Your task to perform on an android device: Show me the best rated 42 inch TV on Walmart. Image 0: 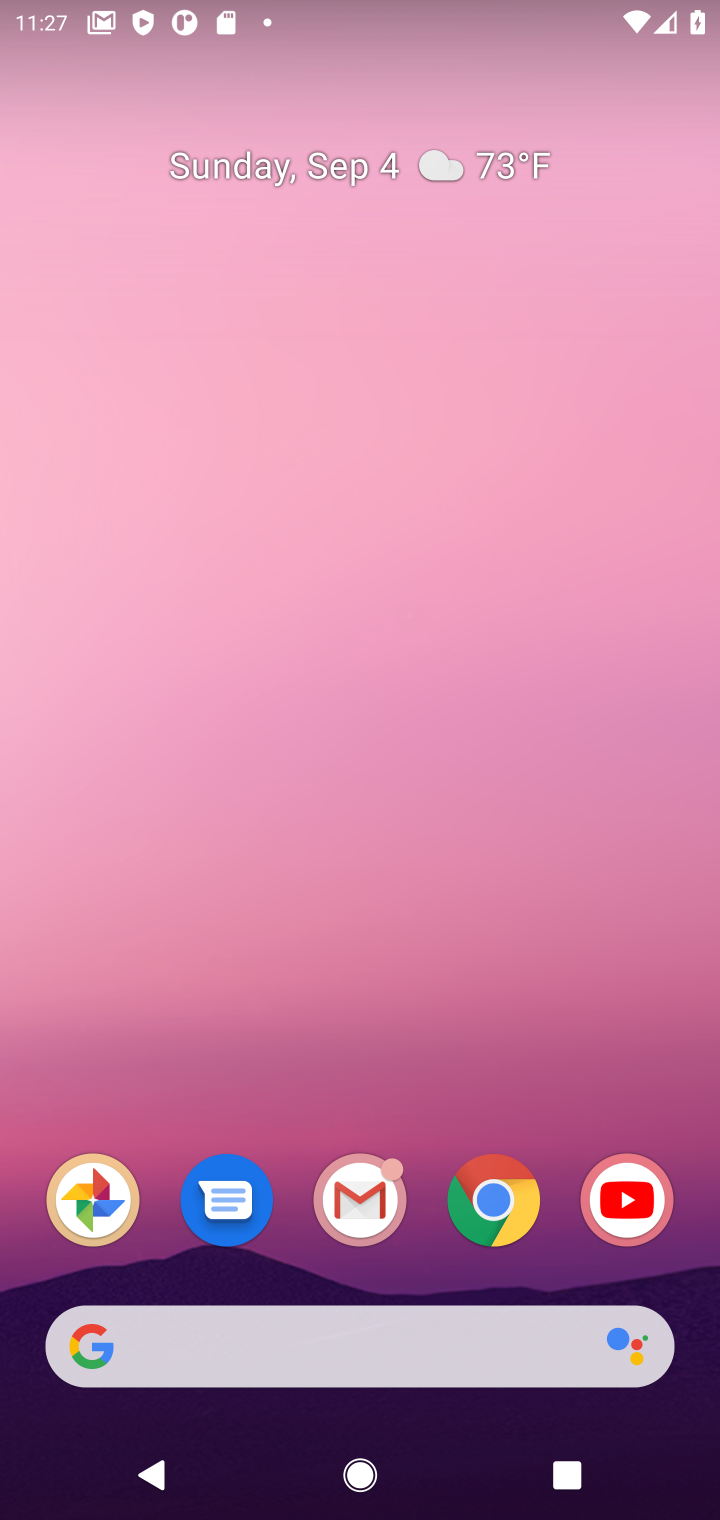
Step 0: drag from (366, 1088) to (402, 114)
Your task to perform on an android device: Show me the best rated 42 inch TV on Walmart. Image 1: 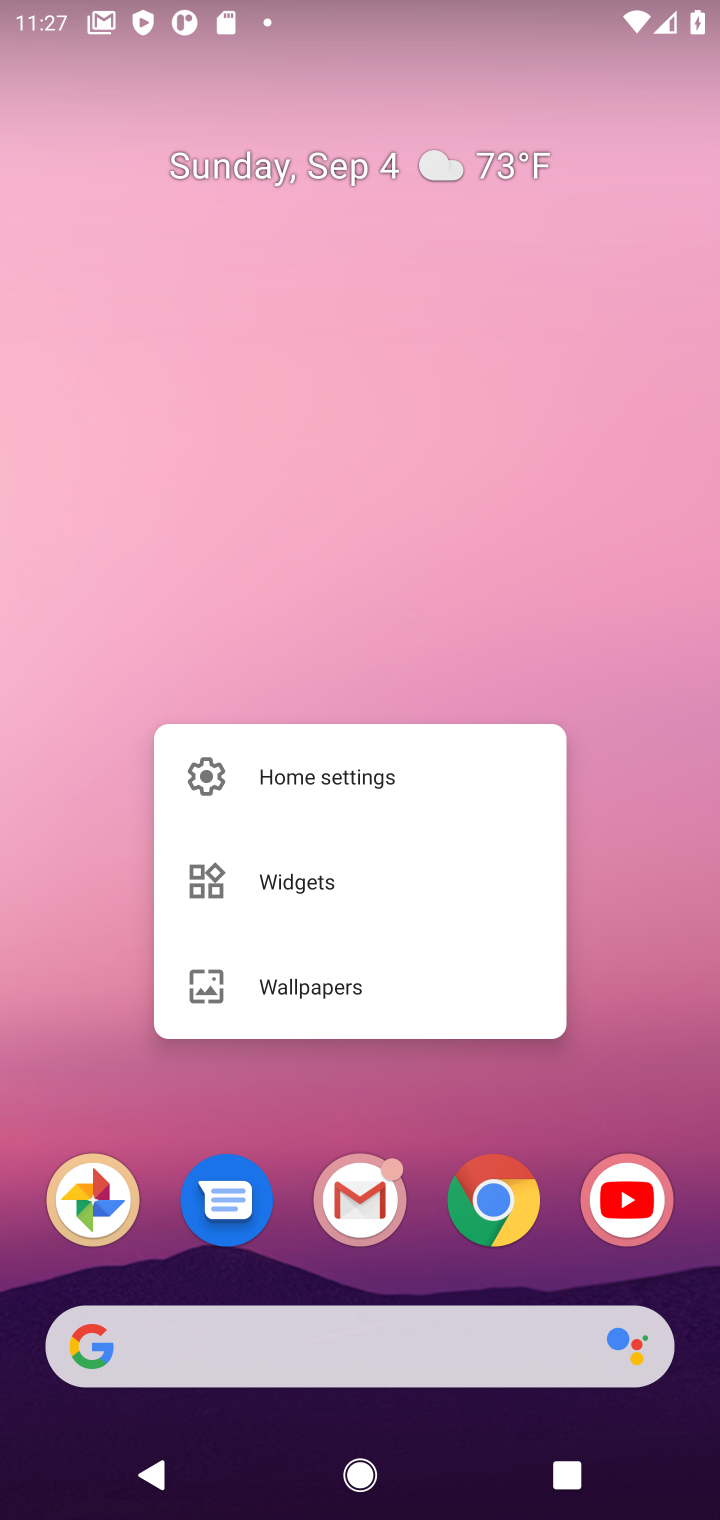
Step 1: click (428, 511)
Your task to perform on an android device: Show me the best rated 42 inch TV on Walmart. Image 2: 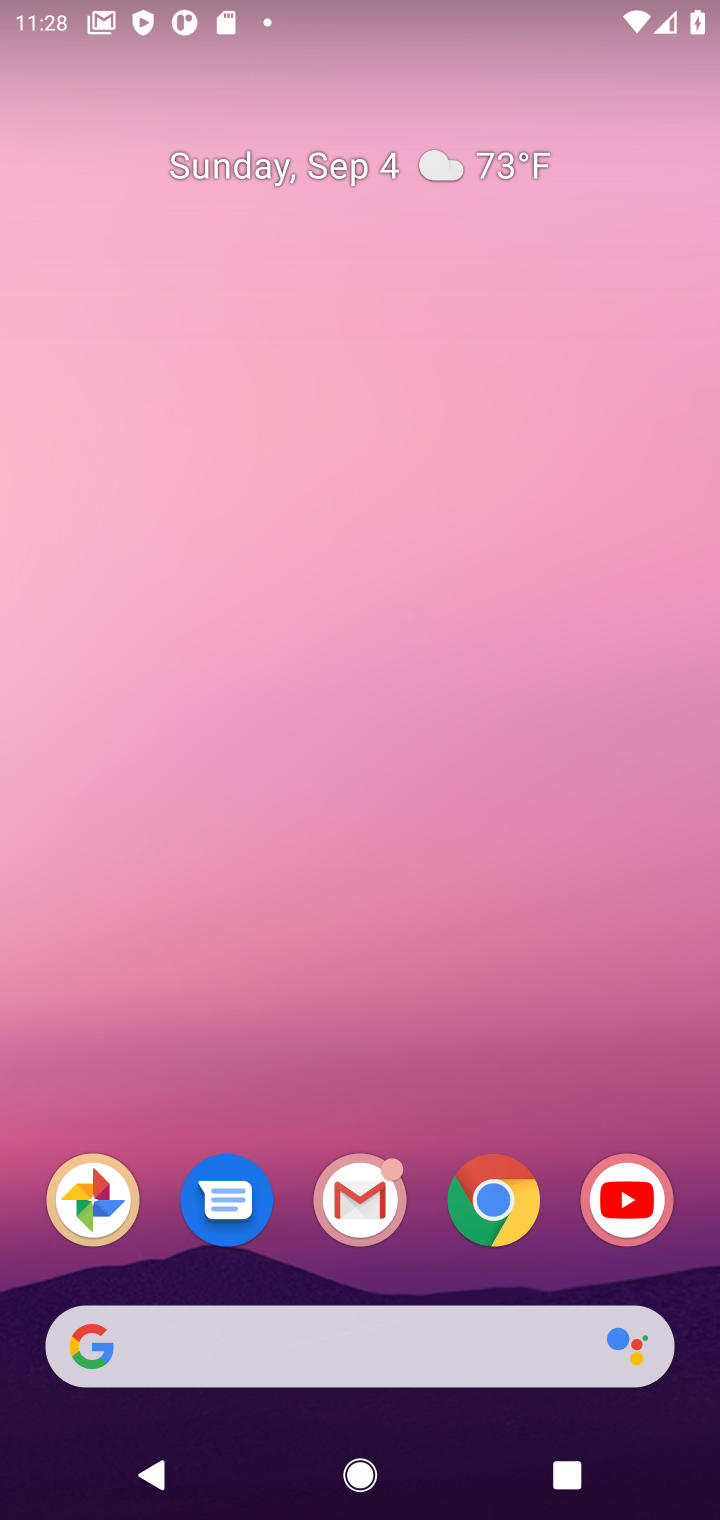
Step 2: click (499, 1205)
Your task to perform on an android device: Show me the best rated 42 inch TV on Walmart. Image 3: 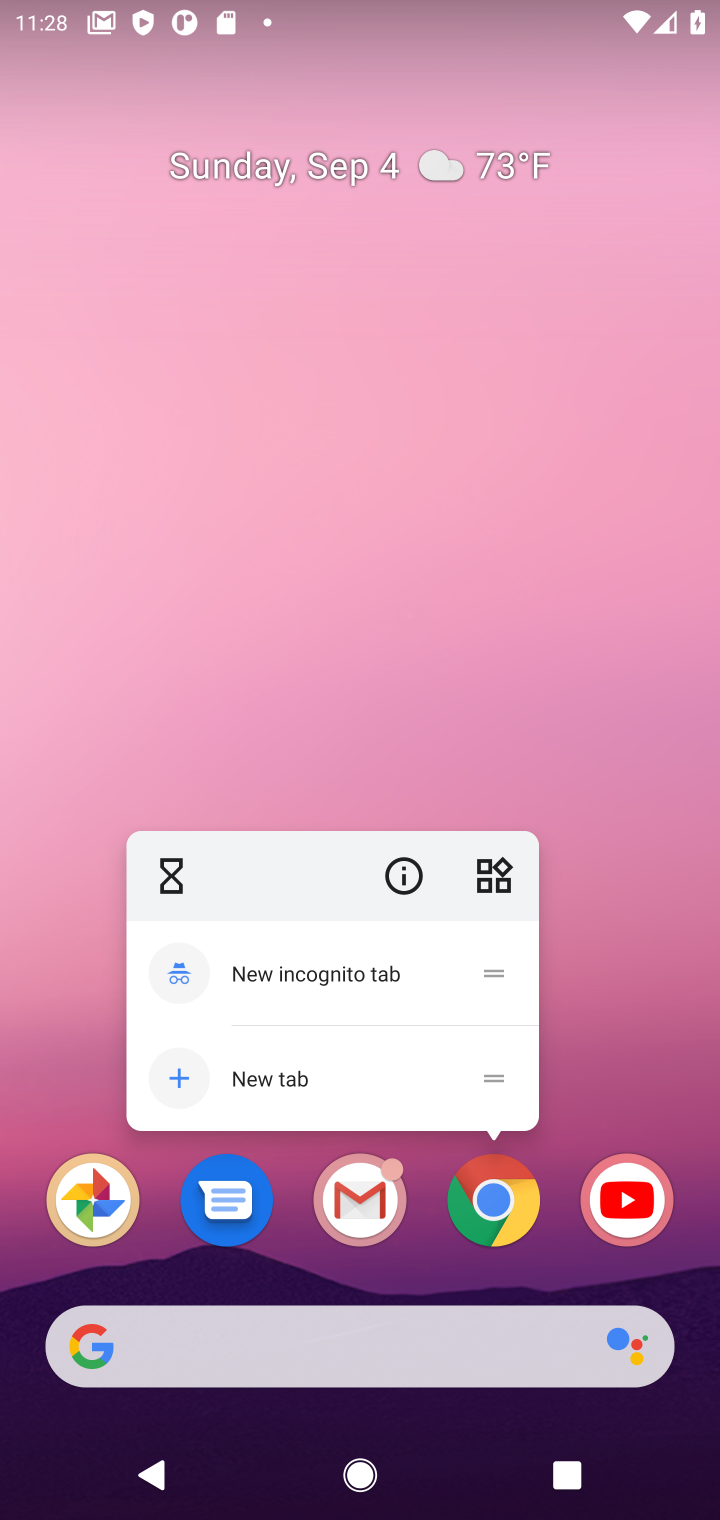
Step 3: click (490, 1206)
Your task to perform on an android device: Show me the best rated 42 inch TV on Walmart. Image 4: 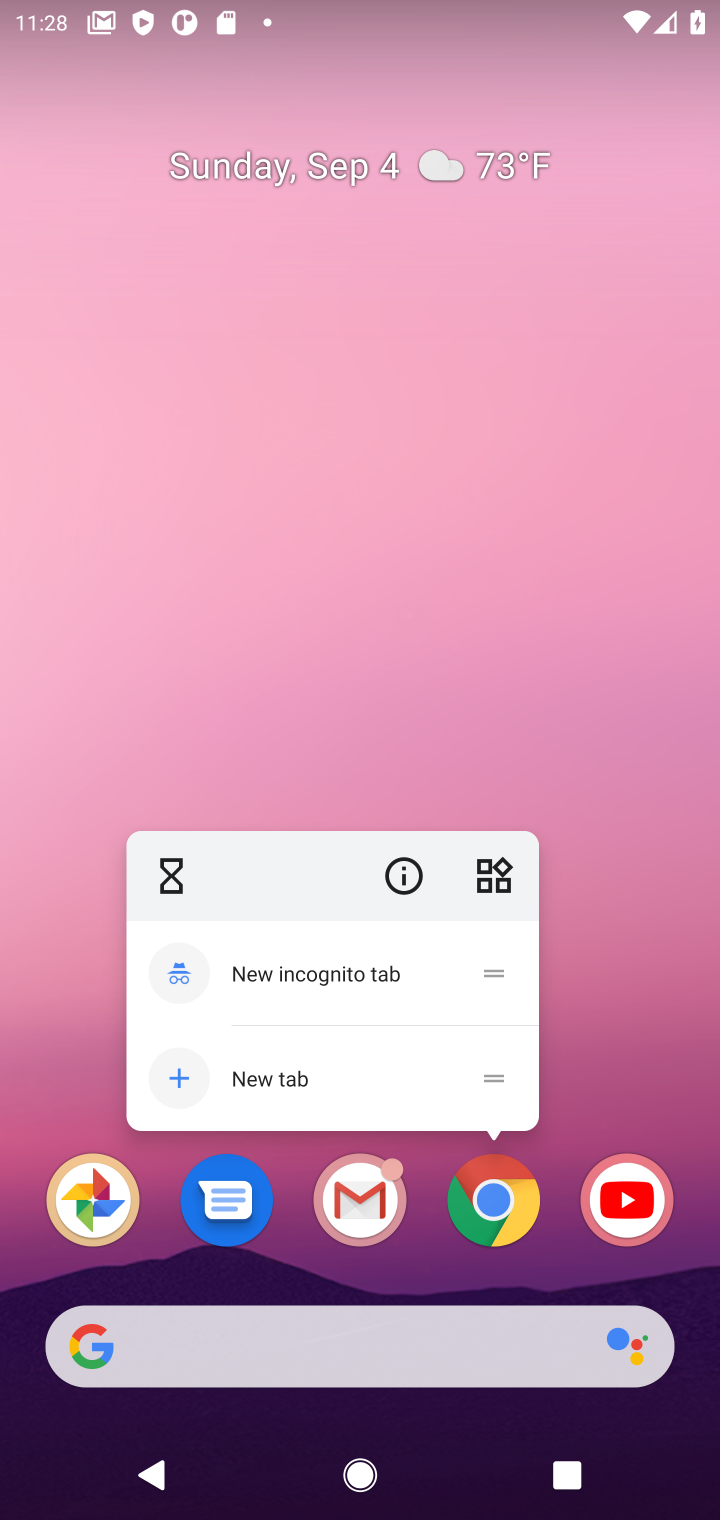
Step 4: click (520, 1202)
Your task to perform on an android device: Show me the best rated 42 inch TV on Walmart. Image 5: 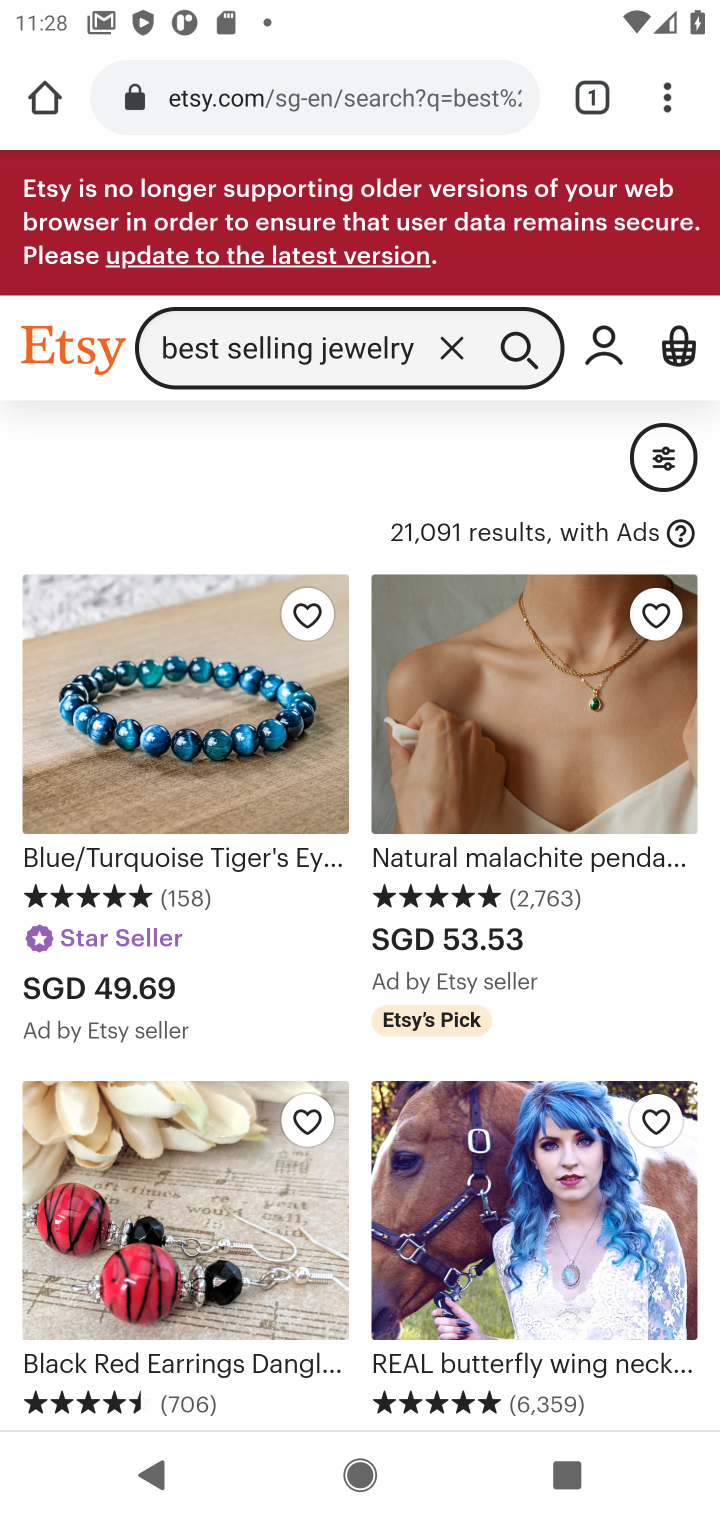
Step 5: click (480, 90)
Your task to perform on an android device: Show me the best rated 42 inch TV on Walmart. Image 6: 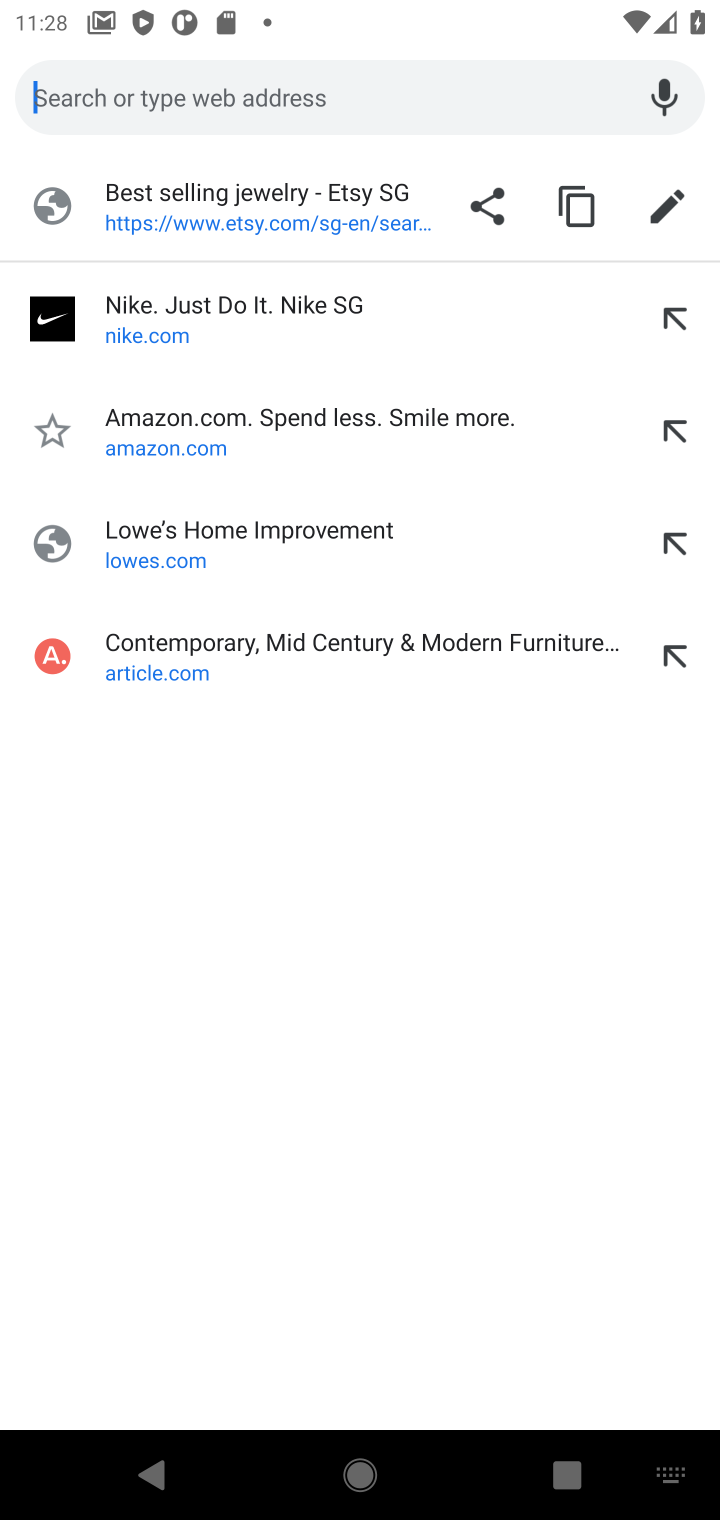
Step 6: click (417, 95)
Your task to perform on an android device: Show me the best rated 42 inch TV on Walmart. Image 7: 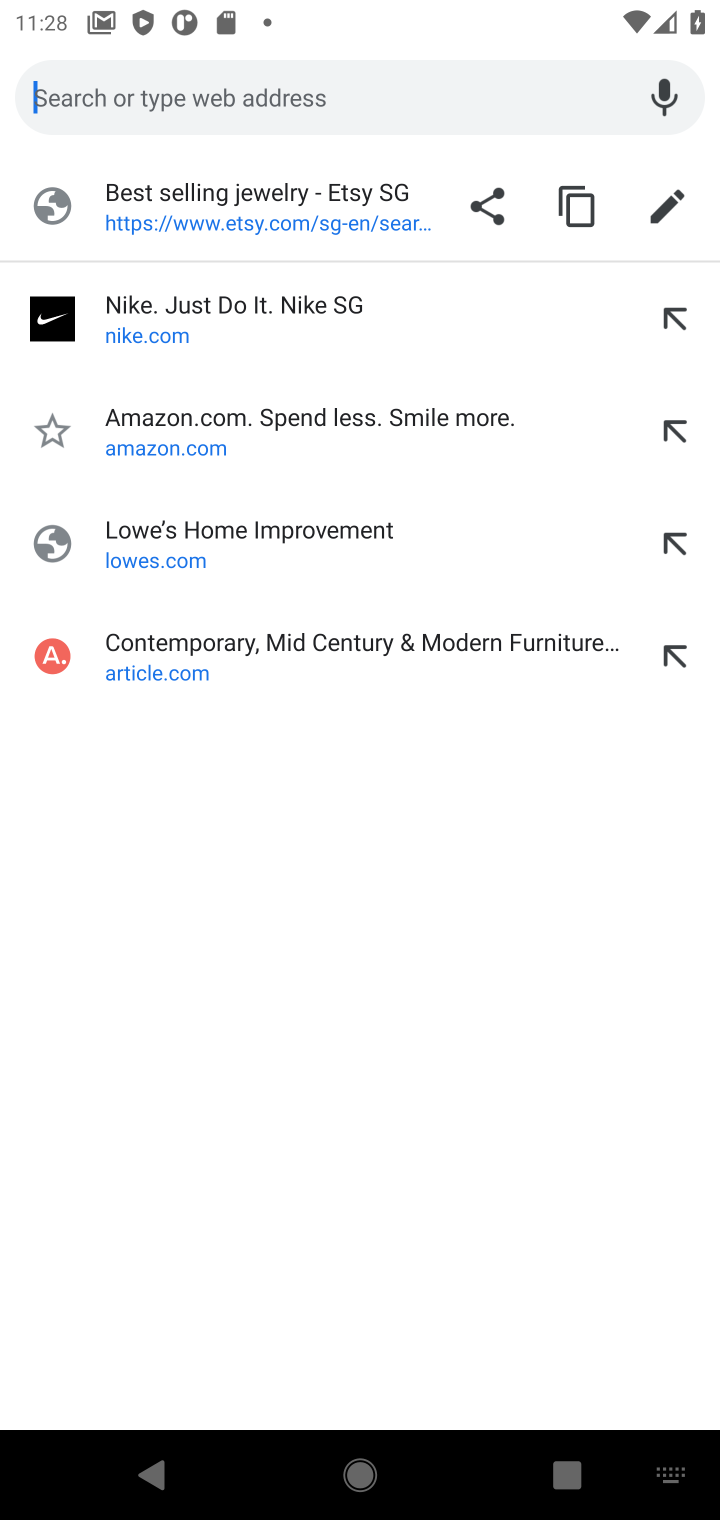
Step 7: type "walmart"
Your task to perform on an android device: Show me the best rated 42 inch TV on Walmart. Image 8: 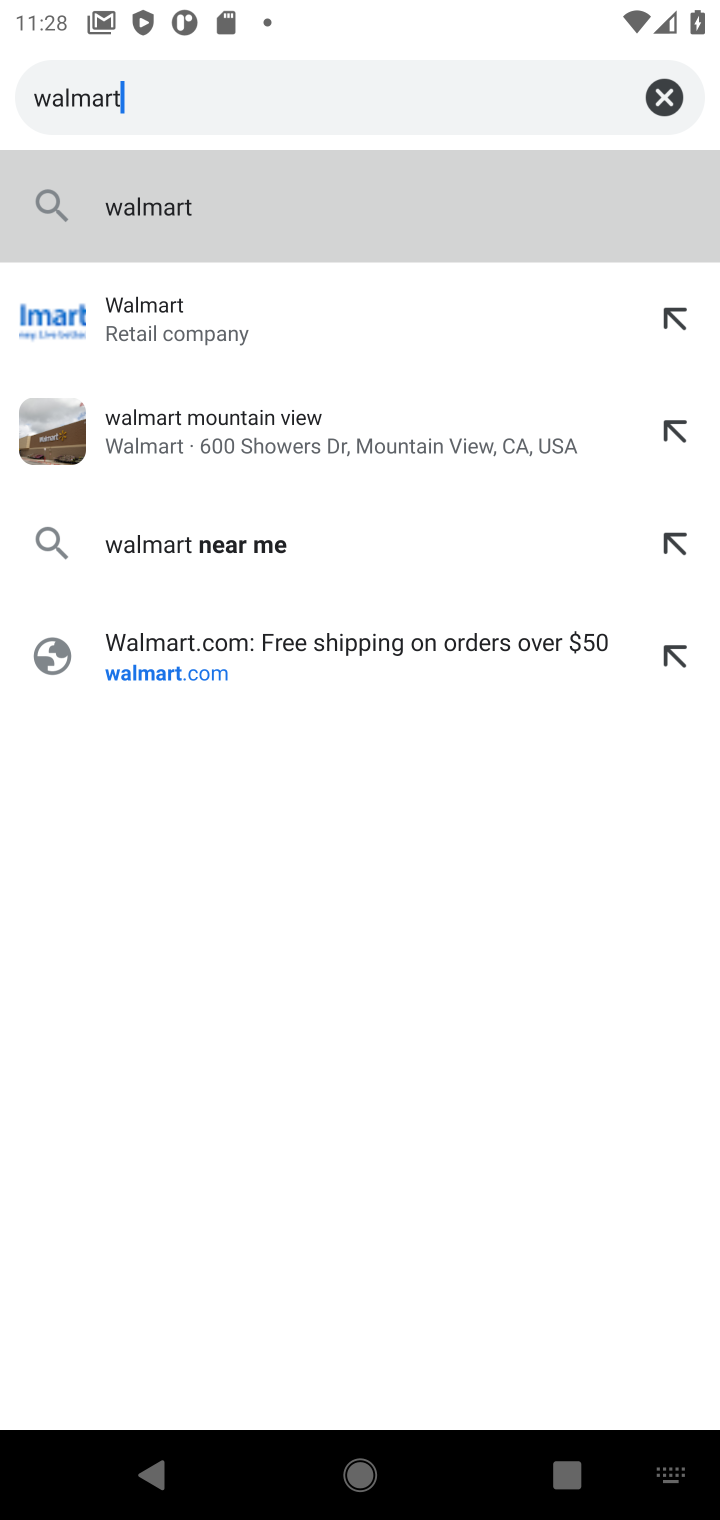
Step 8: click (73, 318)
Your task to perform on an android device: Show me the best rated 42 inch TV on Walmart. Image 9: 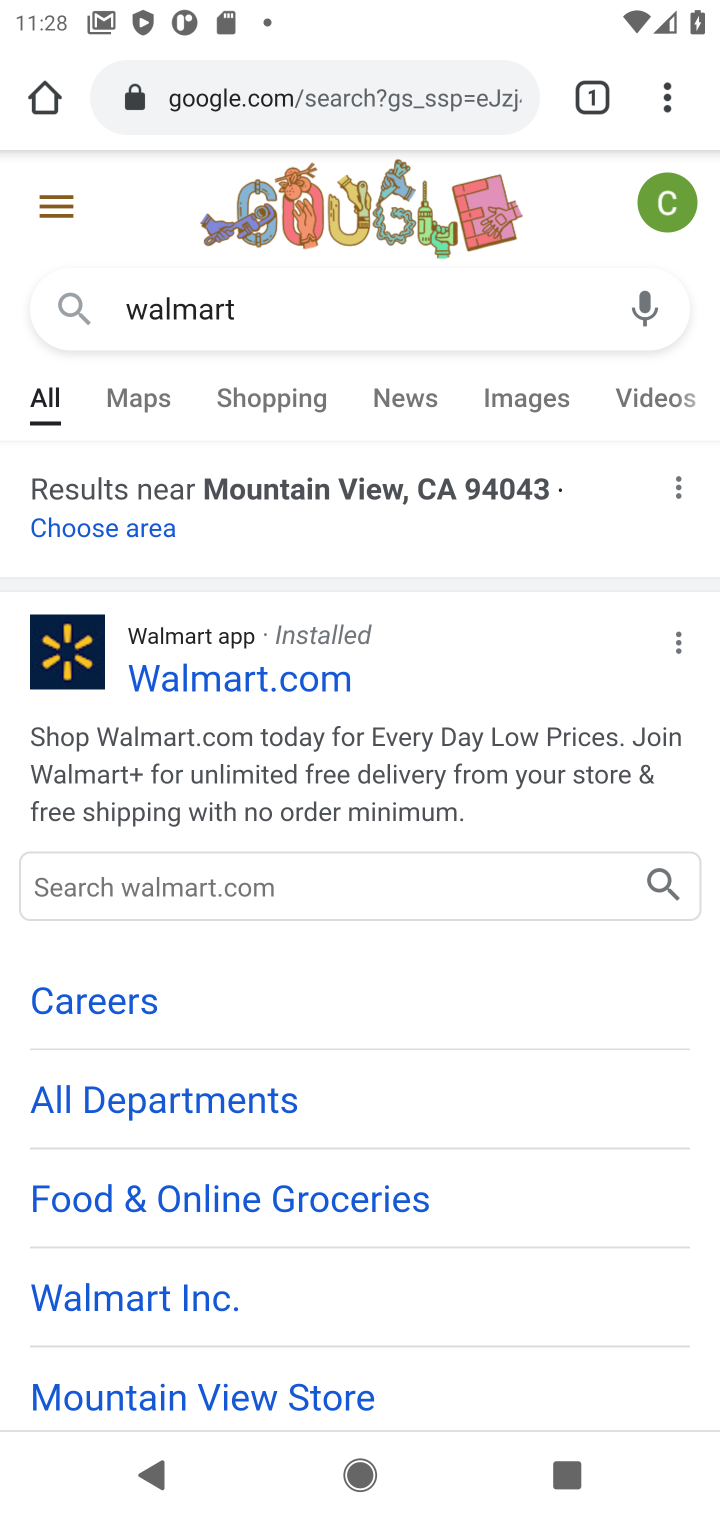
Step 9: click (149, 688)
Your task to perform on an android device: Show me the best rated 42 inch TV on Walmart. Image 10: 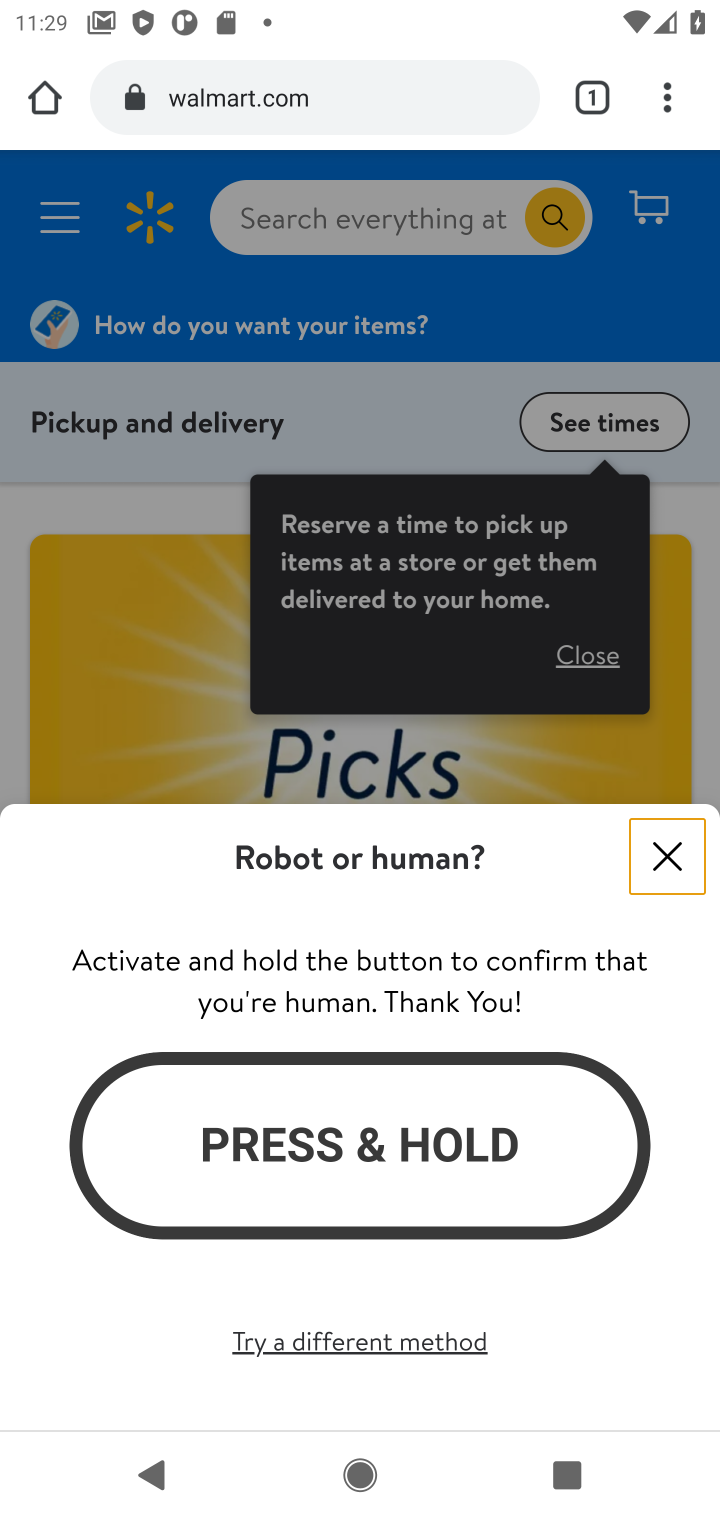
Step 10: click (657, 851)
Your task to perform on an android device: Show me the best rated 42 inch TV on Walmart. Image 11: 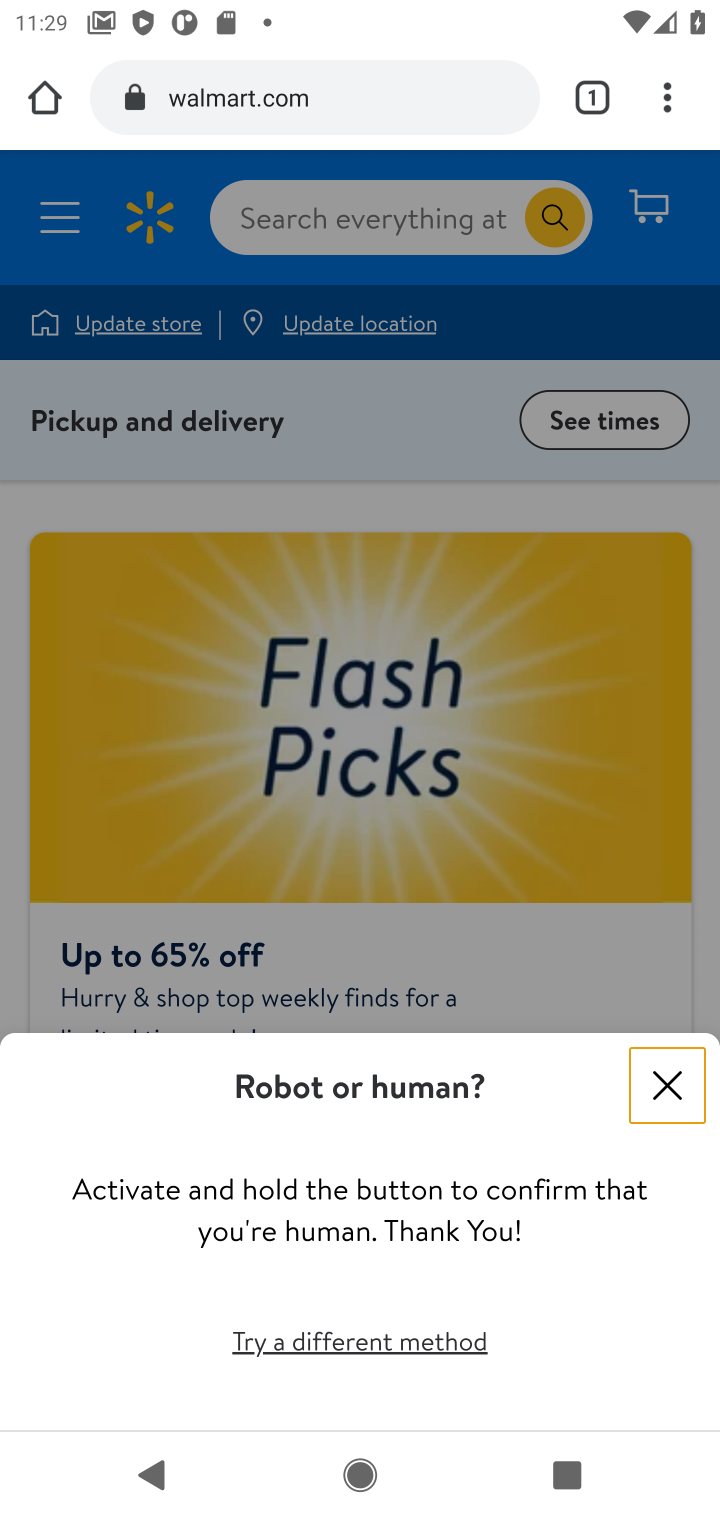
Step 11: click (675, 1068)
Your task to perform on an android device: Show me the best rated 42 inch TV on Walmart. Image 12: 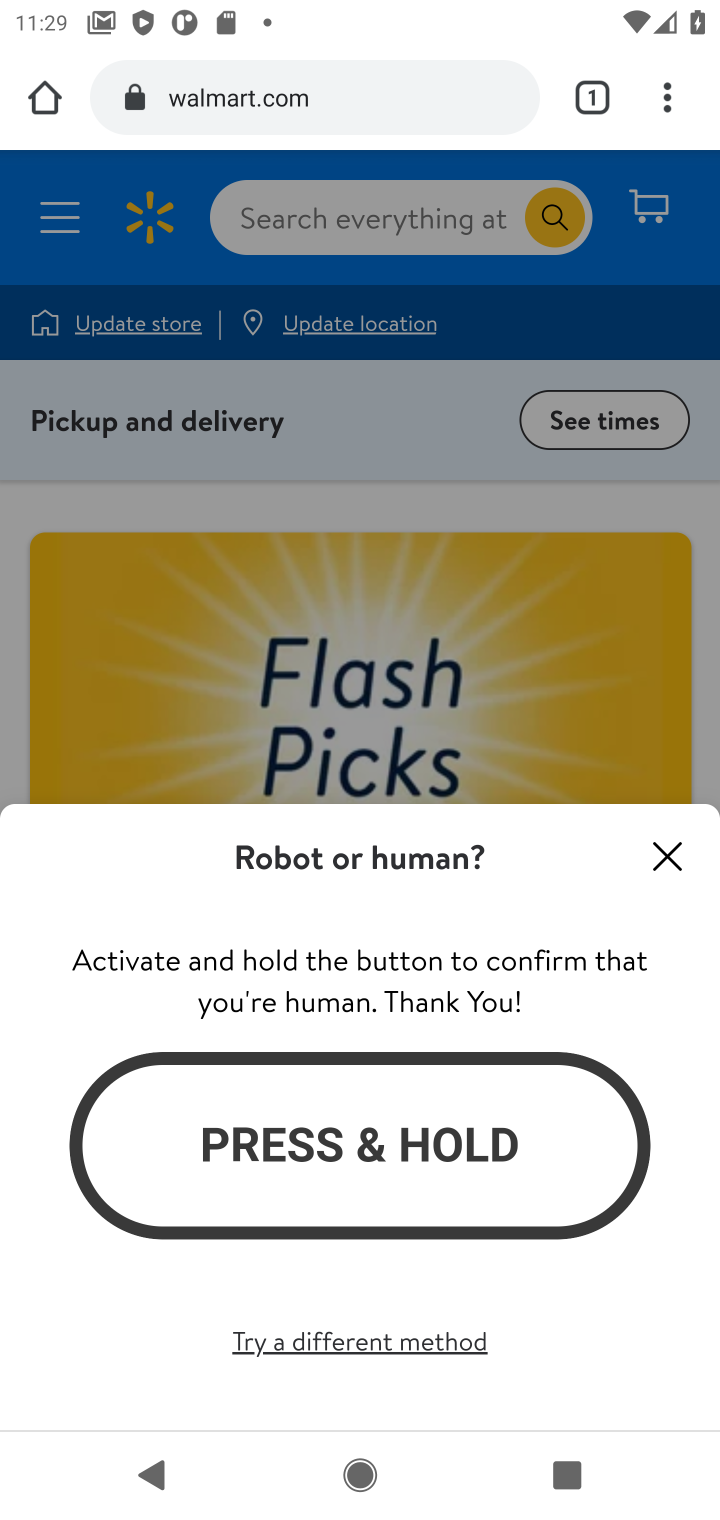
Step 12: click (509, 1133)
Your task to perform on an android device: Show me the best rated 42 inch TV on Walmart. Image 13: 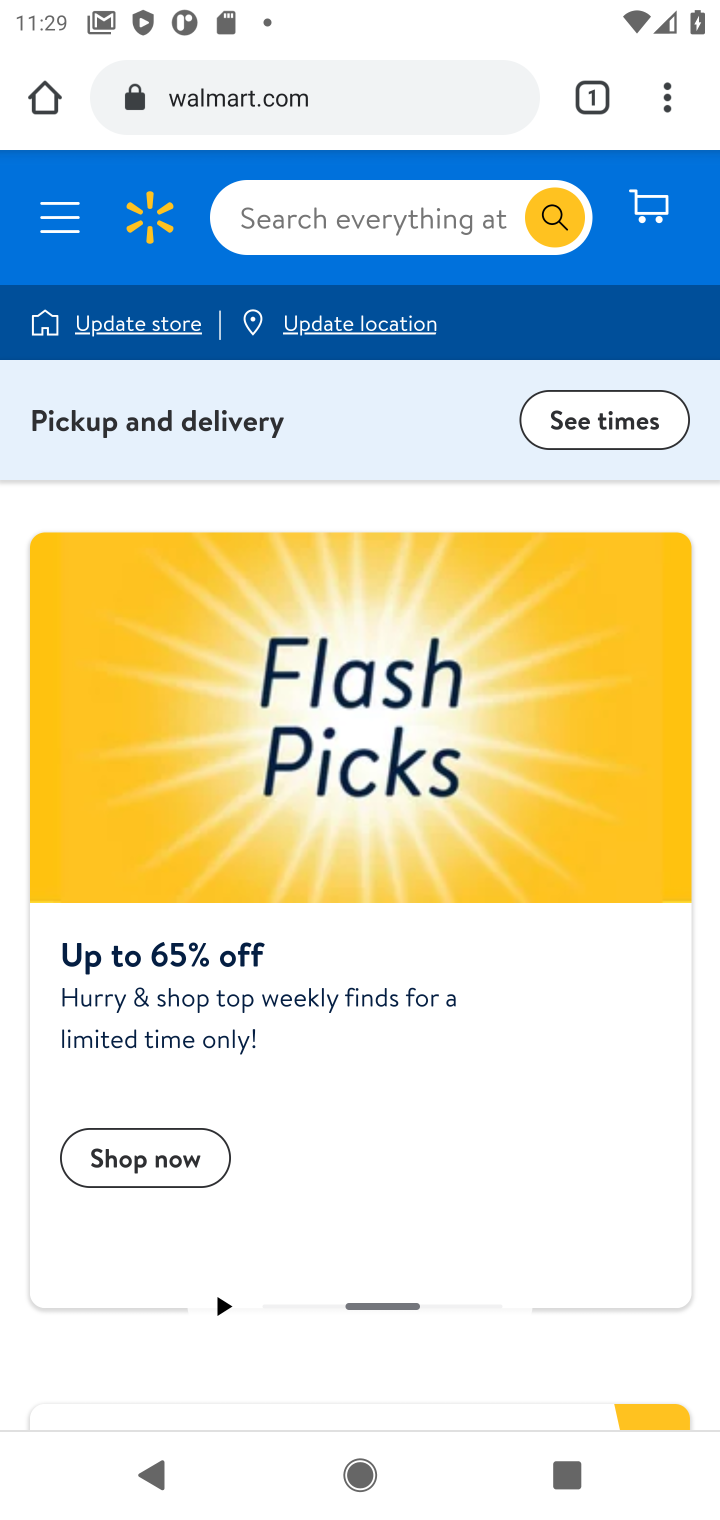
Step 13: click (468, 228)
Your task to perform on an android device: Show me the best rated 42 inch TV on Walmart. Image 14: 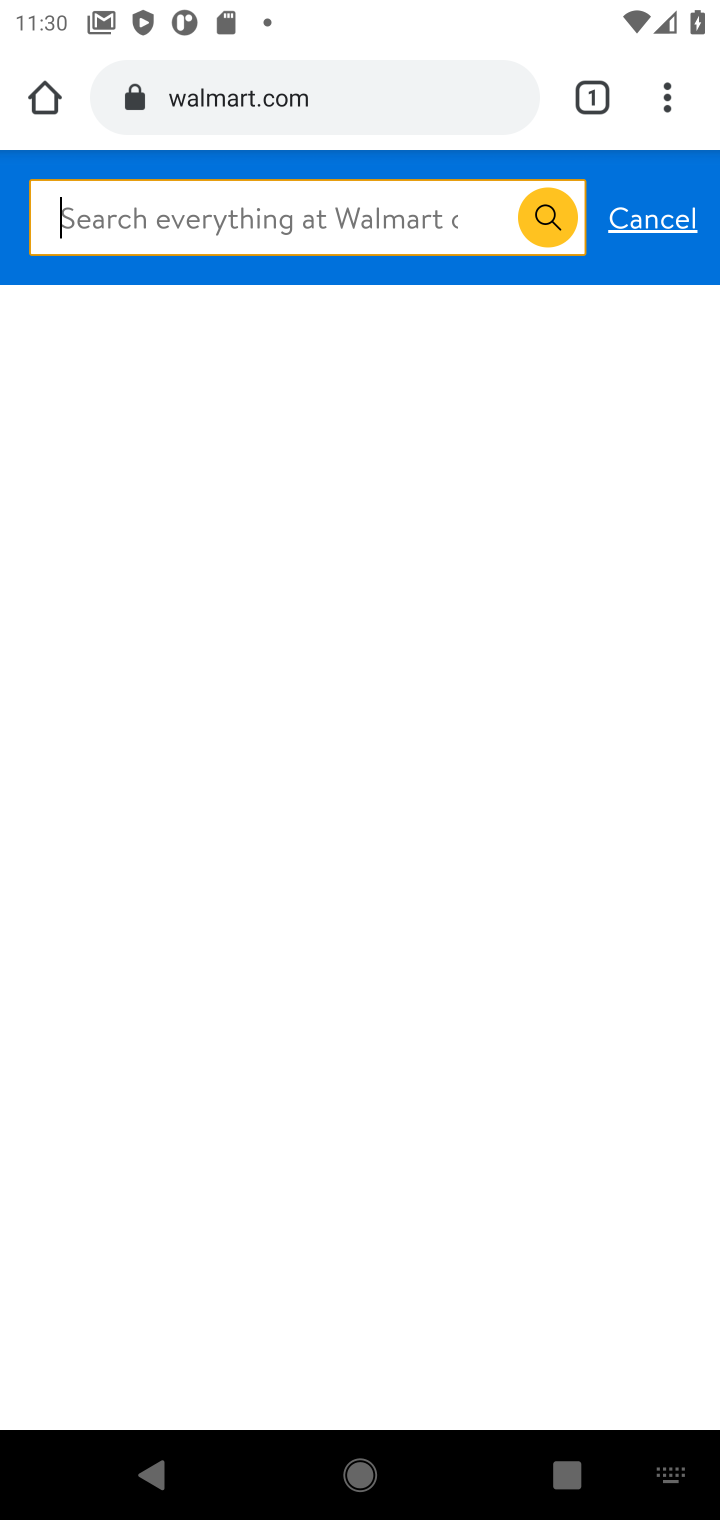
Step 14: type ""
Your task to perform on an android device: Show me the best rated 42 inch TV on Walmart. Image 15: 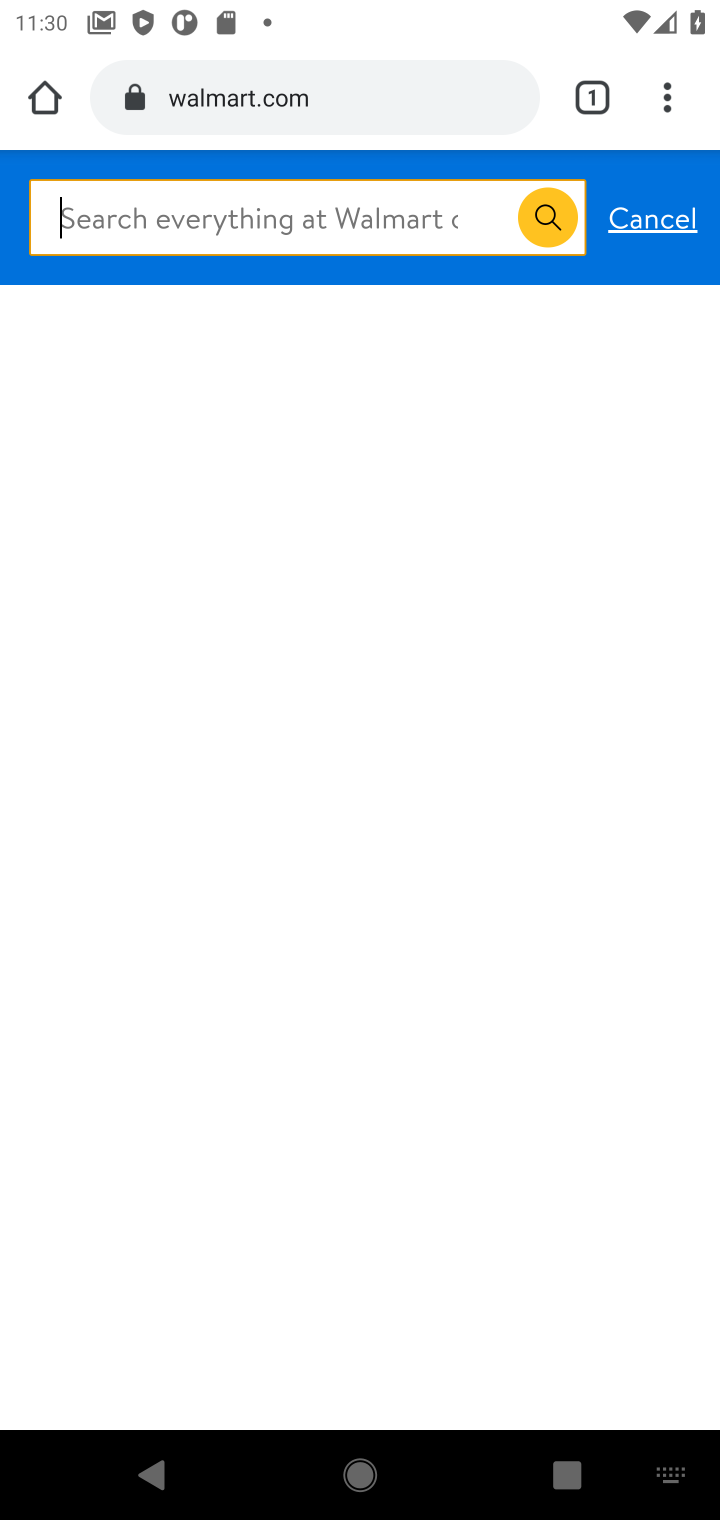
Step 15: type "best rated 42 inch TV"
Your task to perform on an android device: Show me the best rated 42 inch TV on Walmart. Image 16: 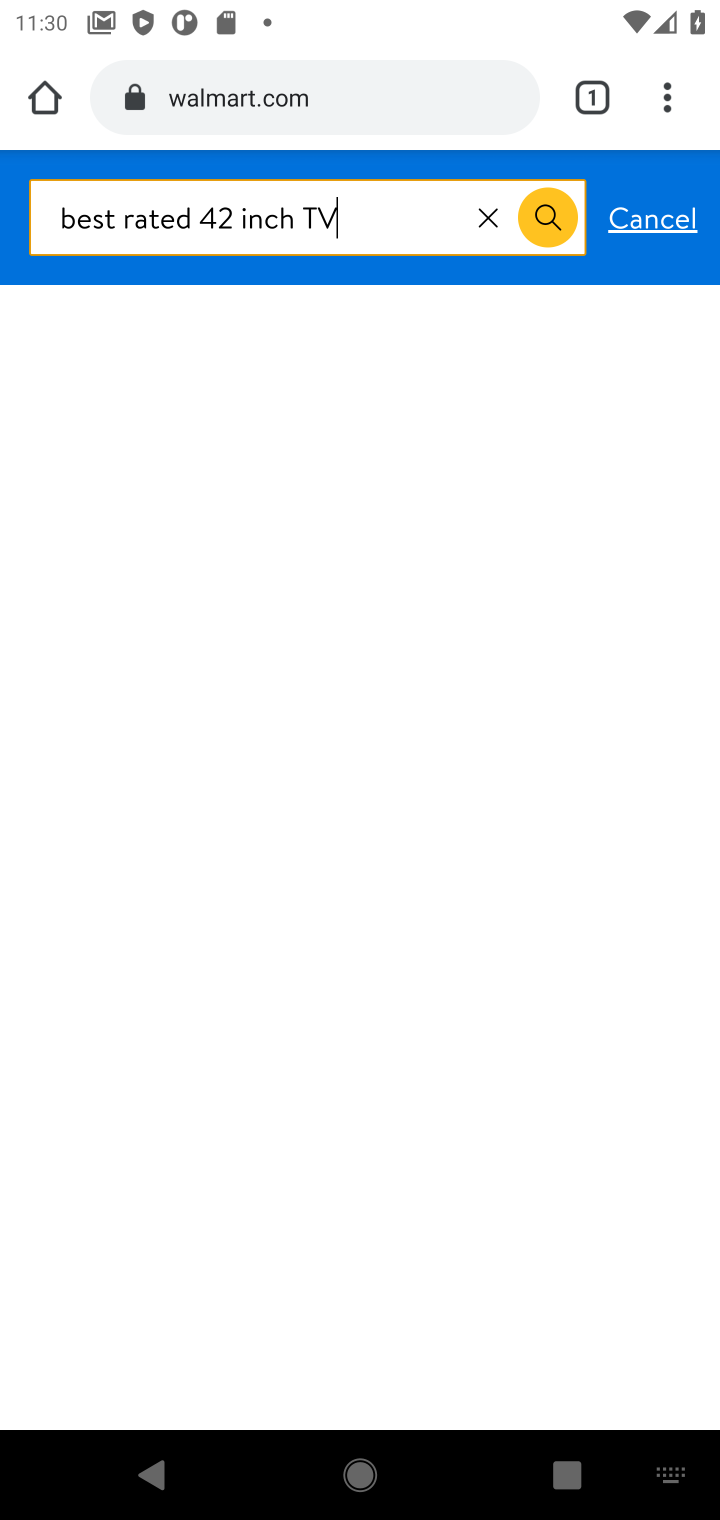
Step 16: click (546, 225)
Your task to perform on an android device: Show me the best rated 42 inch TV on Walmart. Image 17: 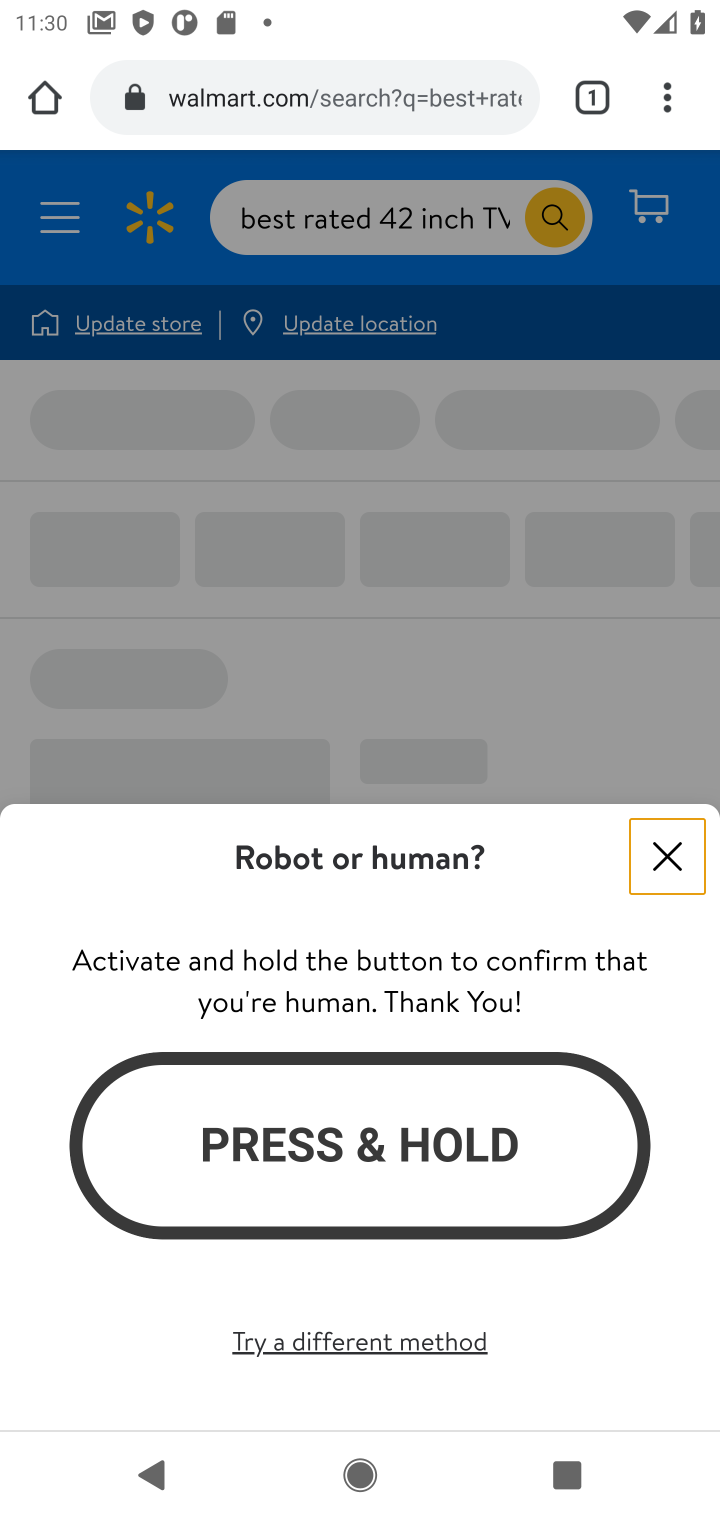
Step 17: click (453, 1140)
Your task to perform on an android device: Show me the best rated 42 inch TV on Walmart. Image 18: 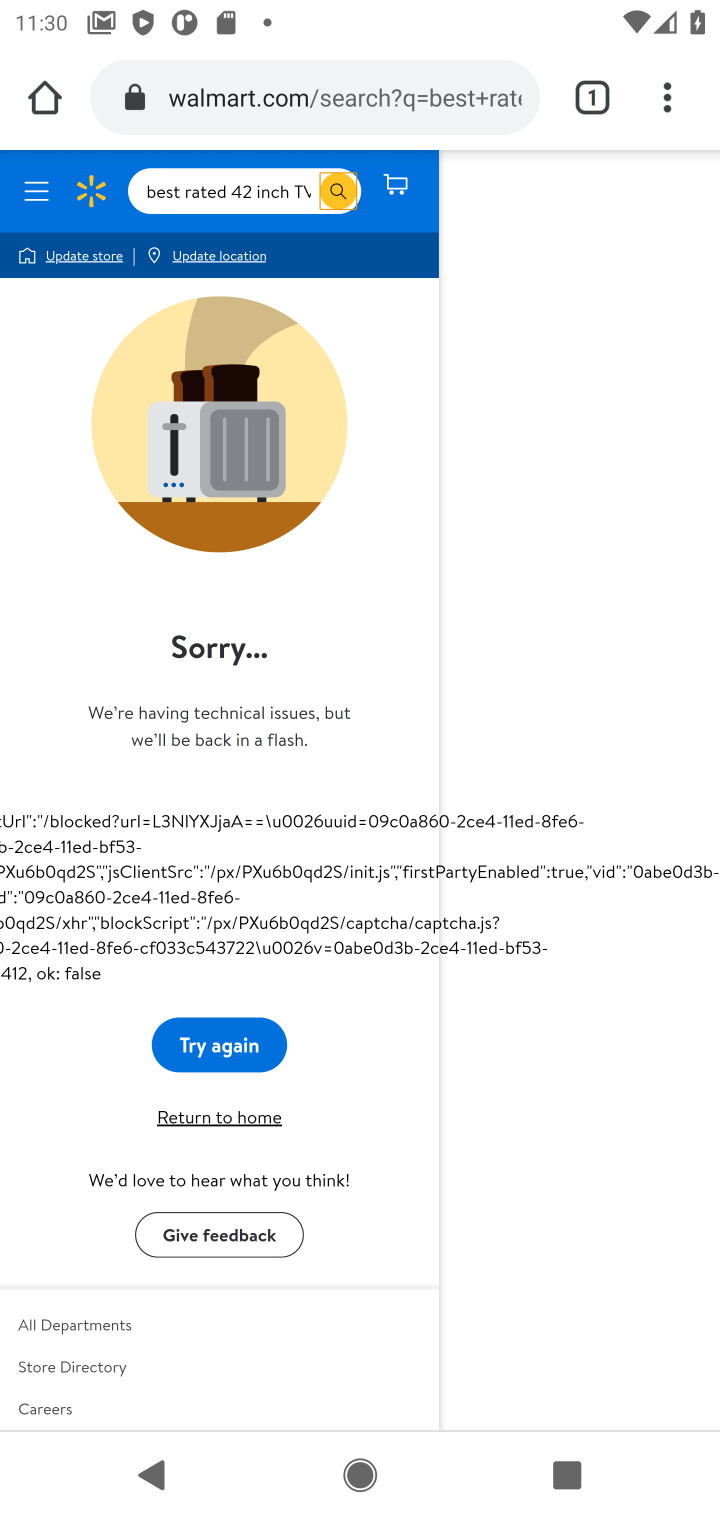
Step 18: task complete